Your task to perform on an android device: check out phone information Image 0: 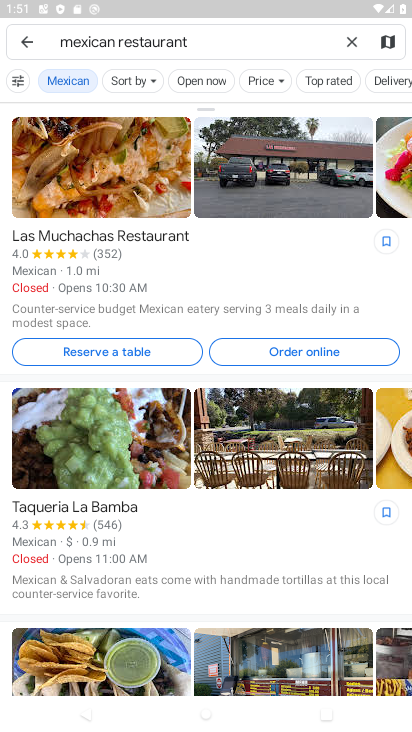
Step 0: press home button
Your task to perform on an android device: check out phone information Image 1: 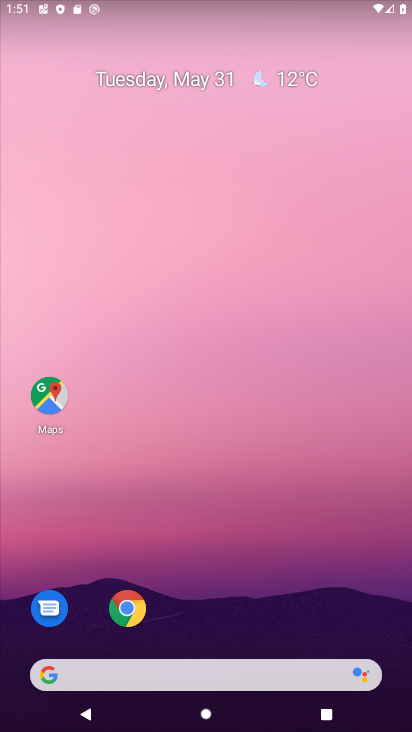
Step 1: drag from (309, 585) to (321, 140)
Your task to perform on an android device: check out phone information Image 2: 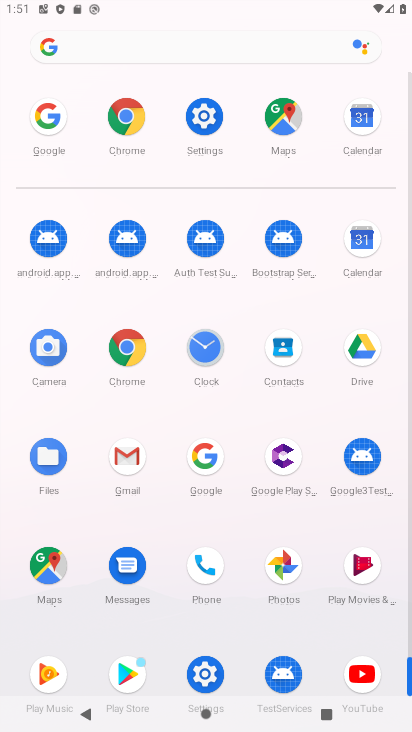
Step 2: click (185, 570)
Your task to perform on an android device: check out phone information Image 3: 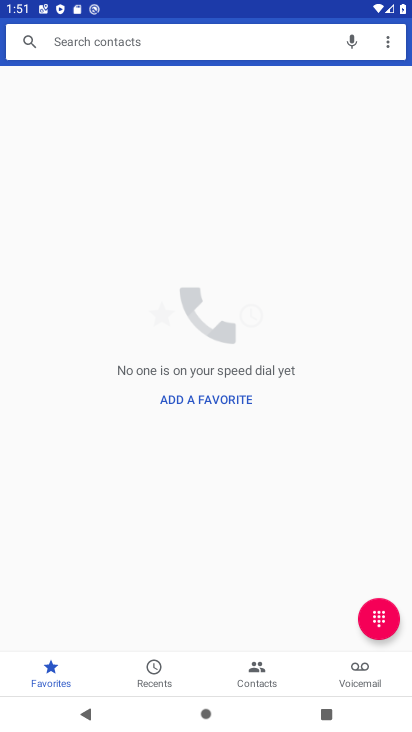
Step 3: click (389, 44)
Your task to perform on an android device: check out phone information Image 4: 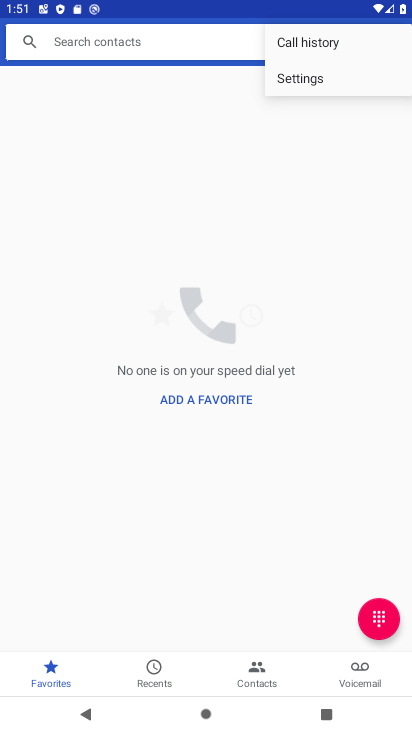
Step 4: click (314, 71)
Your task to perform on an android device: check out phone information Image 5: 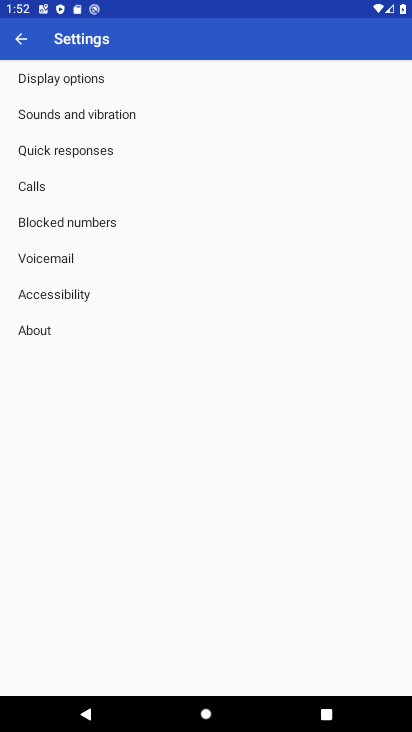
Step 5: task complete